Your task to perform on an android device: change keyboard looks Image 0: 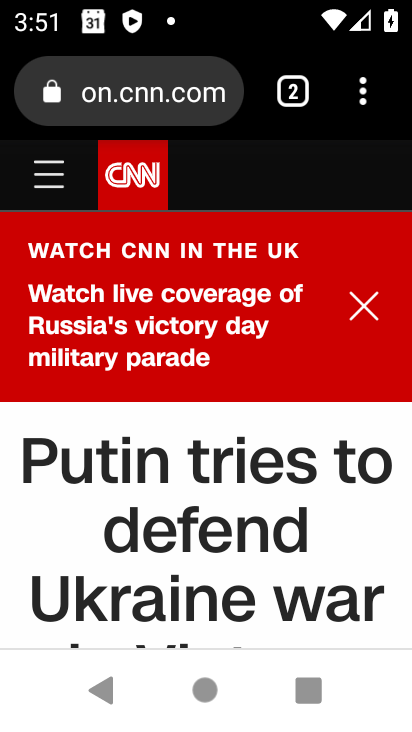
Step 0: press home button
Your task to perform on an android device: change keyboard looks Image 1: 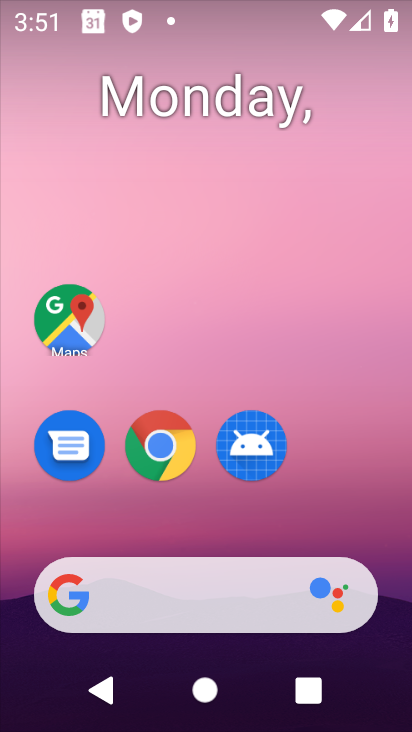
Step 1: drag from (349, 521) to (355, 75)
Your task to perform on an android device: change keyboard looks Image 2: 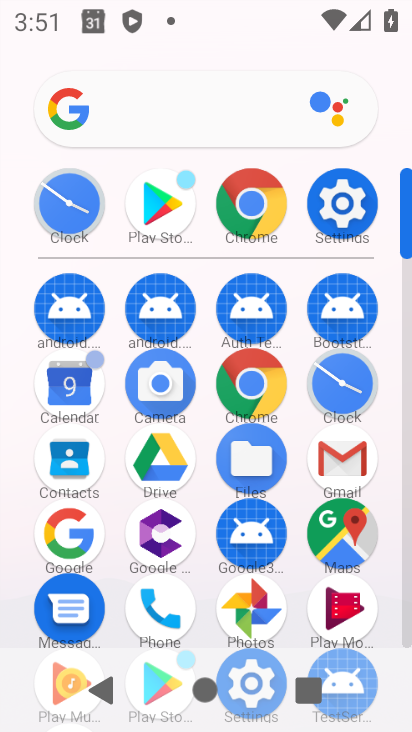
Step 2: click (335, 188)
Your task to perform on an android device: change keyboard looks Image 3: 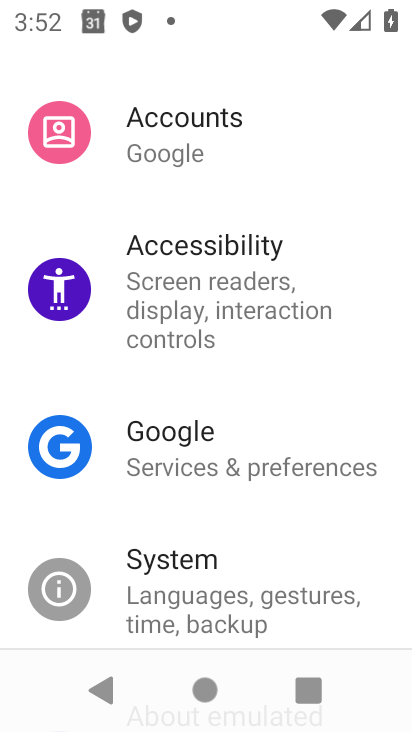
Step 3: click (130, 538)
Your task to perform on an android device: change keyboard looks Image 4: 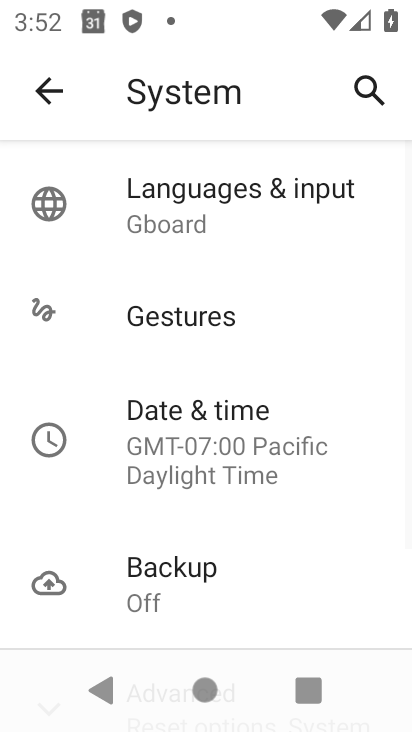
Step 4: click (245, 215)
Your task to perform on an android device: change keyboard looks Image 5: 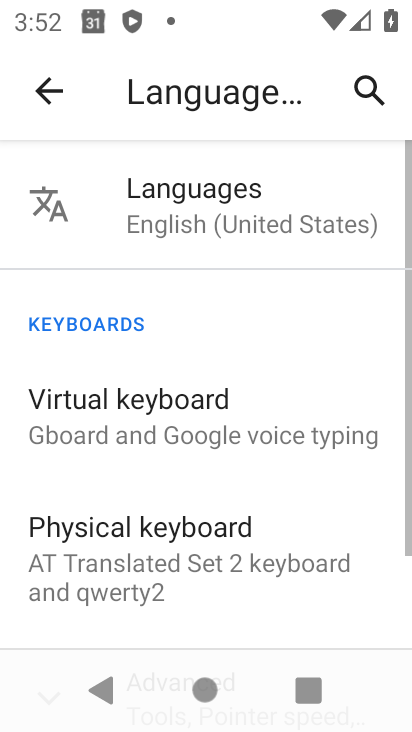
Step 5: click (171, 424)
Your task to perform on an android device: change keyboard looks Image 6: 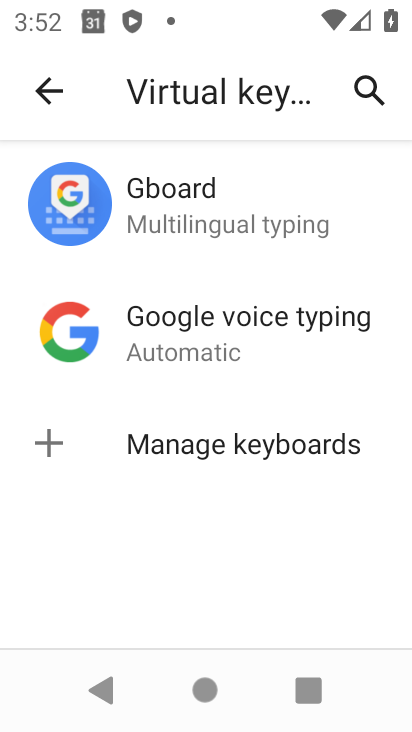
Step 6: click (160, 210)
Your task to perform on an android device: change keyboard looks Image 7: 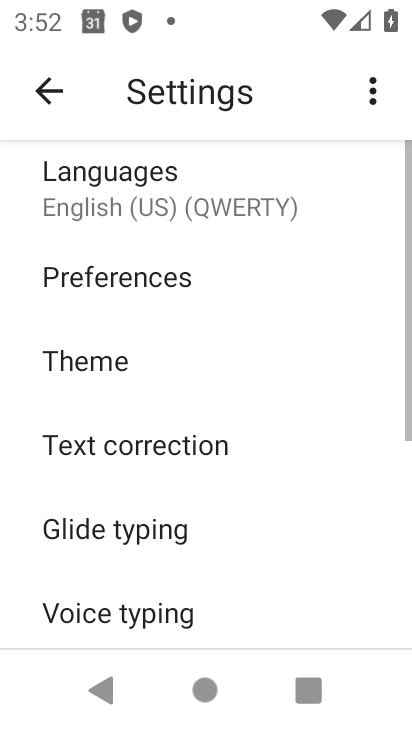
Step 7: click (132, 386)
Your task to perform on an android device: change keyboard looks Image 8: 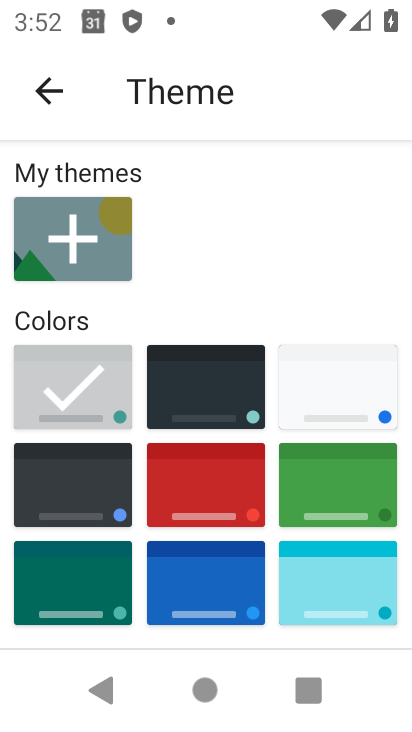
Step 8: click (147, 522)
Your task to perform on an android device: change keyboard looks Image 9: 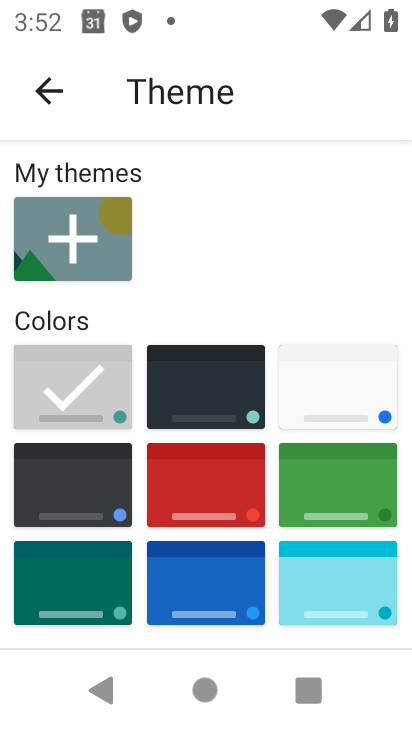
Step 9: click (224, 476)
Your task to perform on an android device: change keyboard looks Image 10: 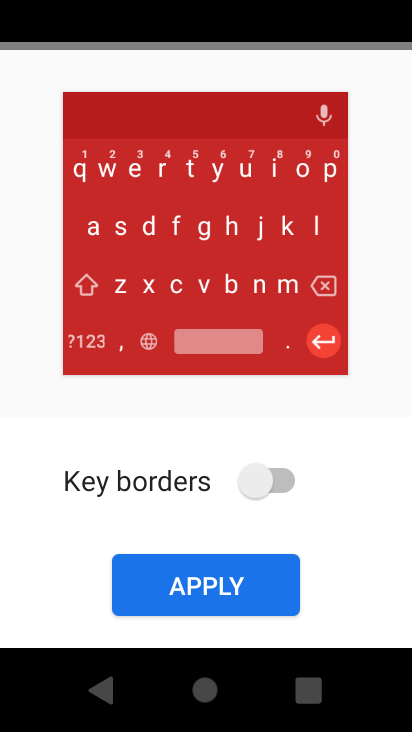
Step 10: click (266, 478)
Your task to perform on an android device: change keyboard looks Image 11: 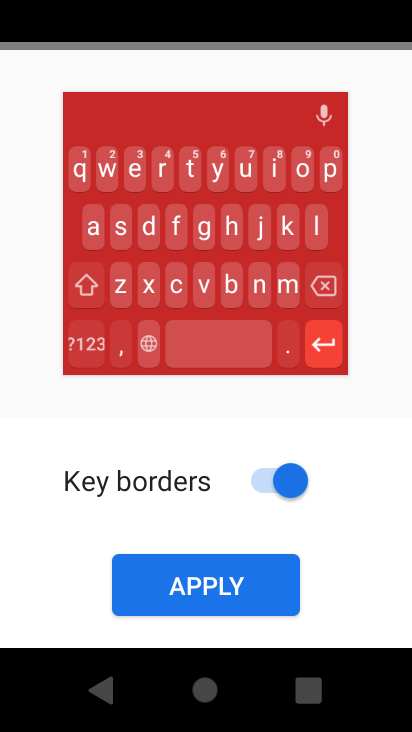
Step 11: click (234, 582)
Your task to perform on an android device: change keyboard looks Image 12: 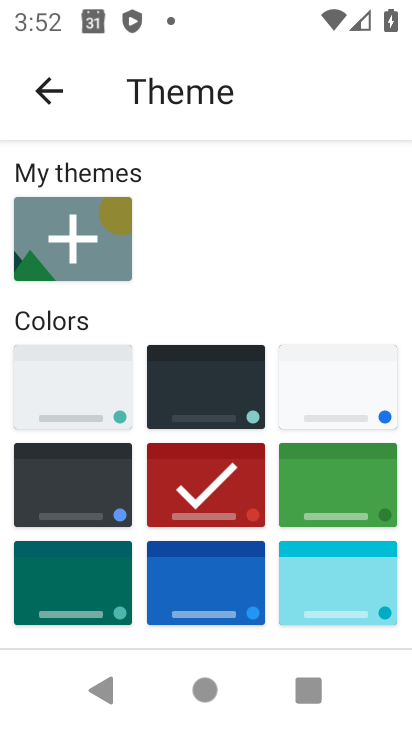
Step 12: task complete